Your task to perform on an android device: Open settings Image 0: 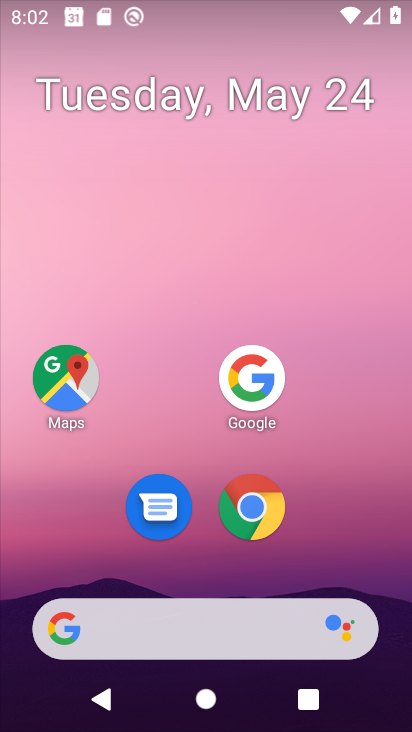
Step 0: press home button
Your task to perform on an android device: Open settings Image 1: 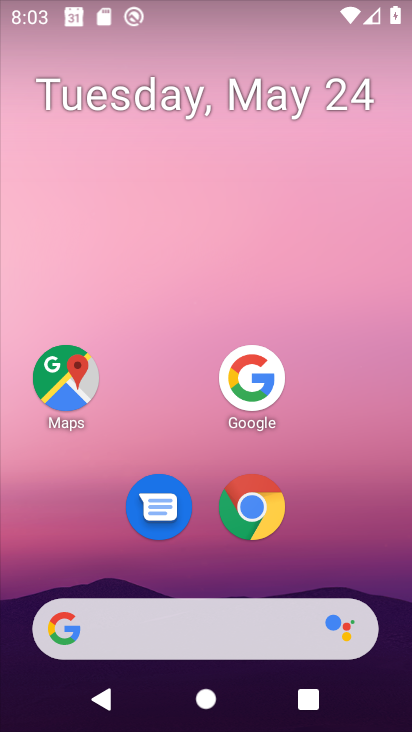
Step 1: drag from (192, 636) to (300, 108)
Your task to perform on an android device: Open settings Image 2: 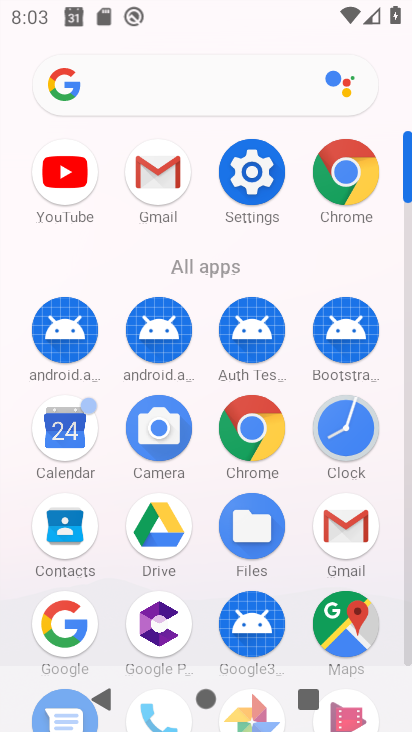
Step 2: click (248, 186)
Your task to perform on an android device: Open settings Image 3: 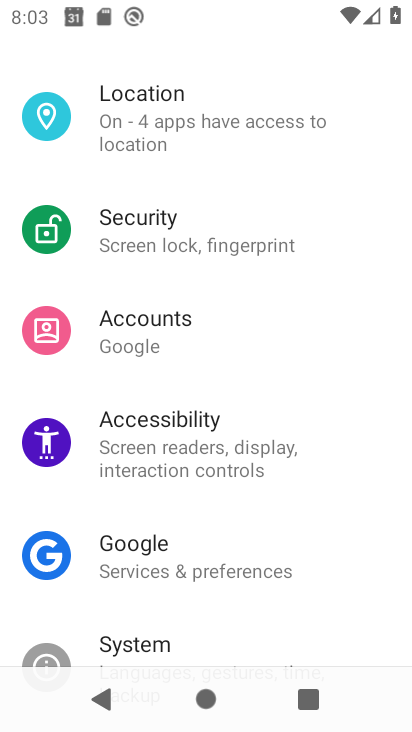
Step 3: task complete